Your task to perform on an android device: Go to wifi settings Image 0: 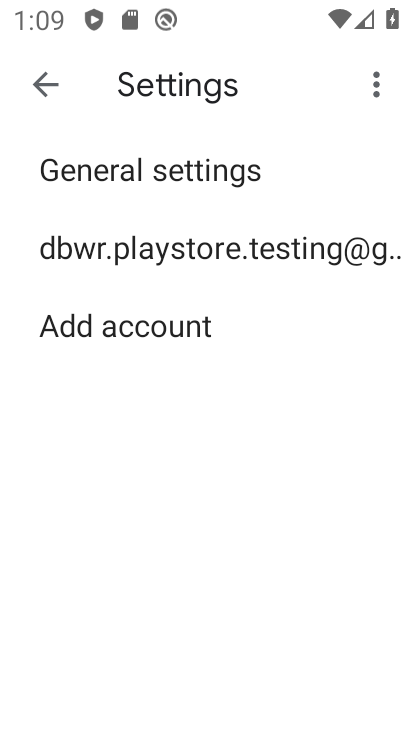
Step 0: press home button
Your task to perform on an android device: Go to wifi settings Image 1: 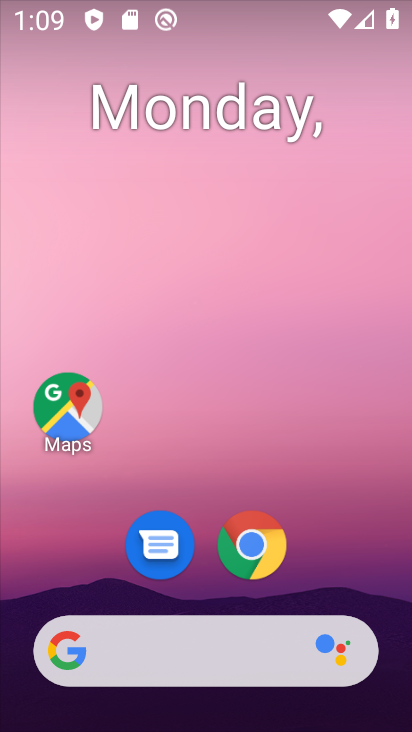
Step 1: drag from (227, 600) to (225, 189)
Your task to perform on an android device: Go to wifi settings Image 2: 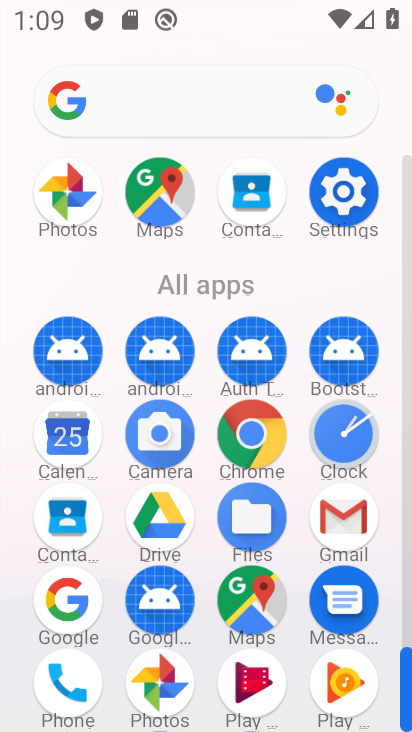
Step 2: click (340, 188)
Your task to perform on an android device: Go to wifi settings Image 3: 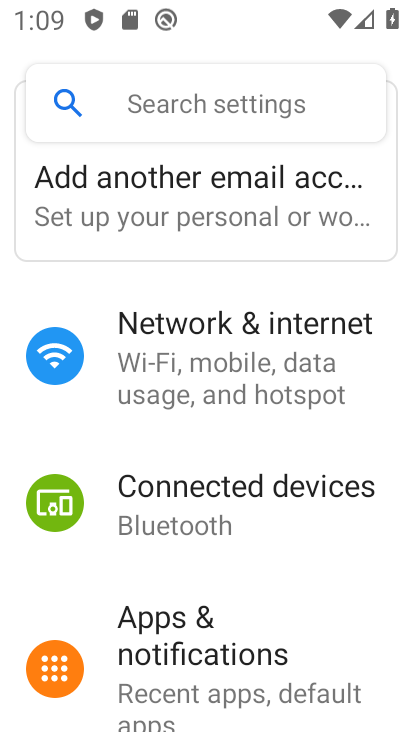
Step 3: click (199, 352)
Your task to perform on an android device: Go to wifi settings Image 4: 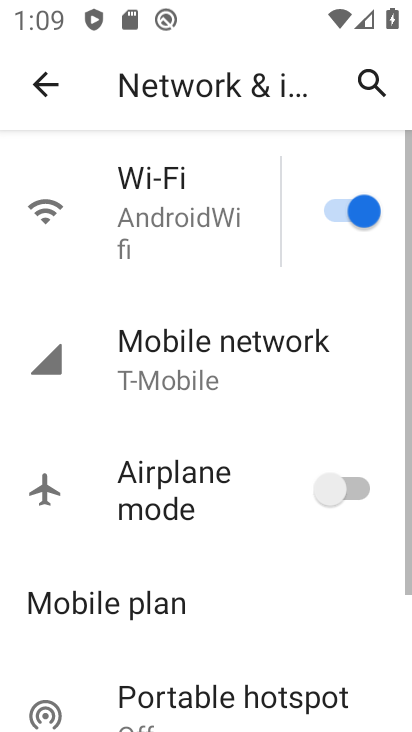
Step 4: click (144, 196)
Your task to perform on an android device: Go to wifi settings Image 5: 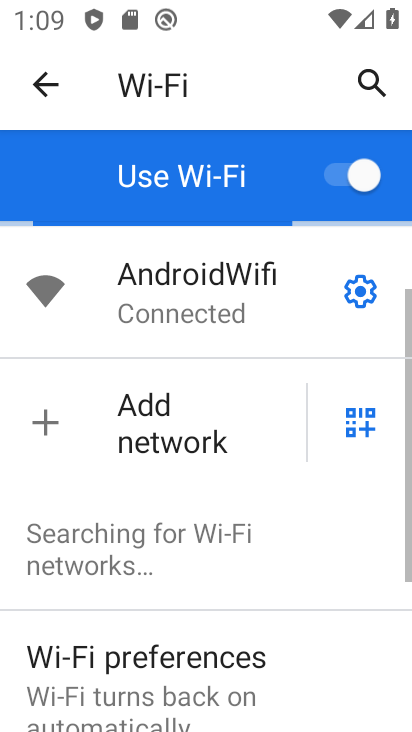
Step 5: task complete